Your task to perform on an android device: Play the last video I watched on Youtube Image 0: 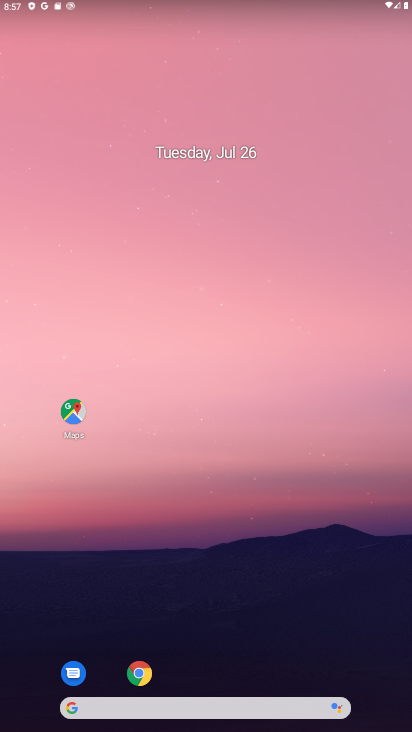
Step 0: drag from (240, 542) to (193, 127)
Your task to perform on an android device: Play the last video I watched on Youtube Image 1: 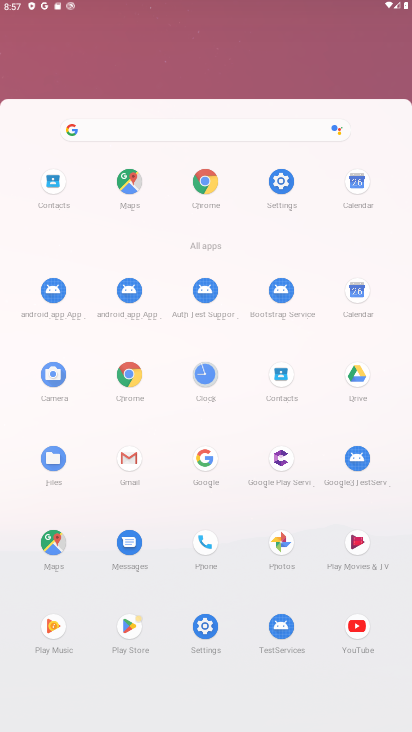
Step 1: drag from (220, 540) to (262, 82)
Your task to perform on an android device: Play the last video I watched on Youtube Image 2: 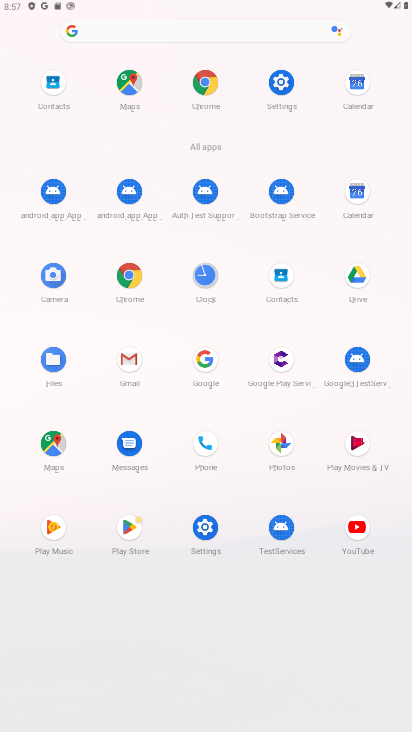
Step 2: drag from (330, 601) to (356, 113)
Your task to perform on an android device: Play the last video I watched on Youtube Image 3: 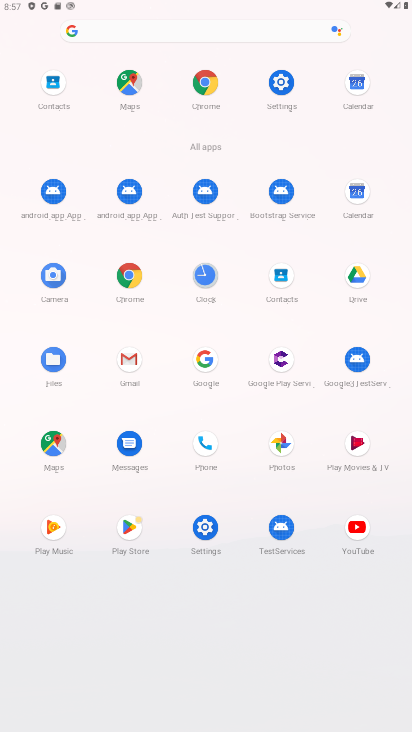
Step 3: click (364, 533)
Your task to perform on an android device: Play the last video I watched on Youtube Image 4: 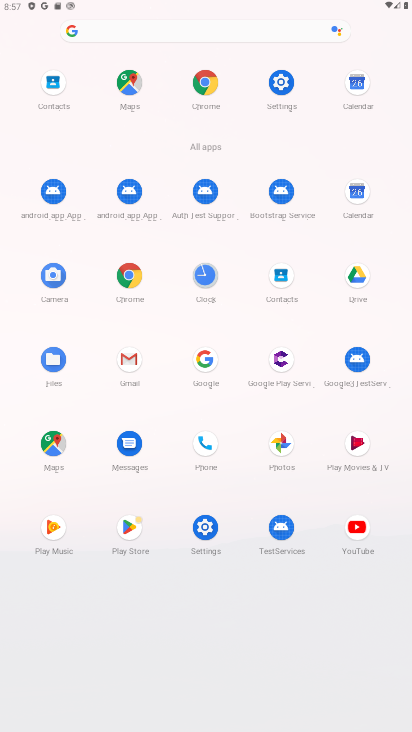
Step 4: click (364, 533)
Your task to perform on an android device: Play the last video I watched on Youtube Image 5: 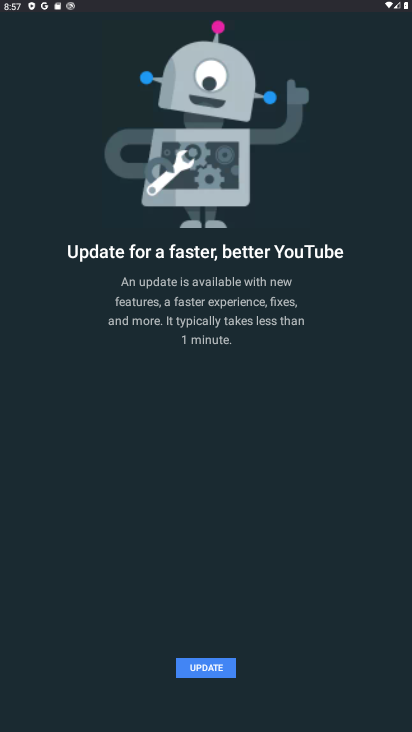
Step 5: click (363, 534)
Your task to perform on an android device: Play the last video I watched on Youtube Image 6: 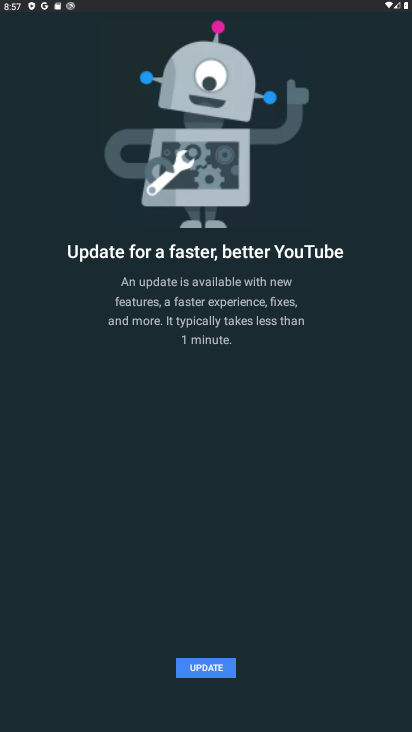
Step 6: click (198, 660)
Your task to perform on an android device: Play the last video I watched on Youtube Image 7: 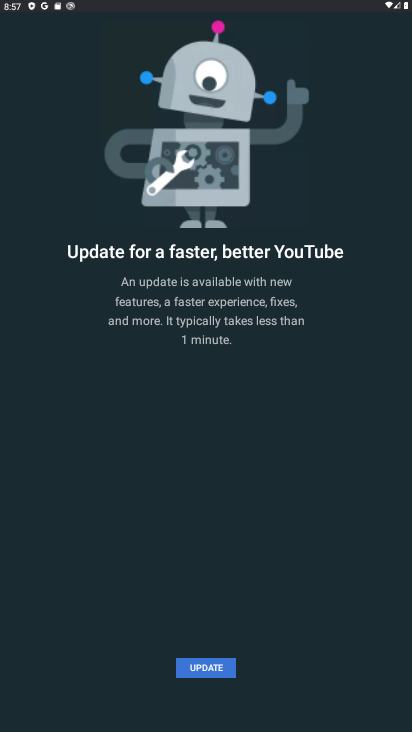
Step 7: click (199, 660)
Your task to perform on an android device: Play the last video I watched on Youtube Image 8: 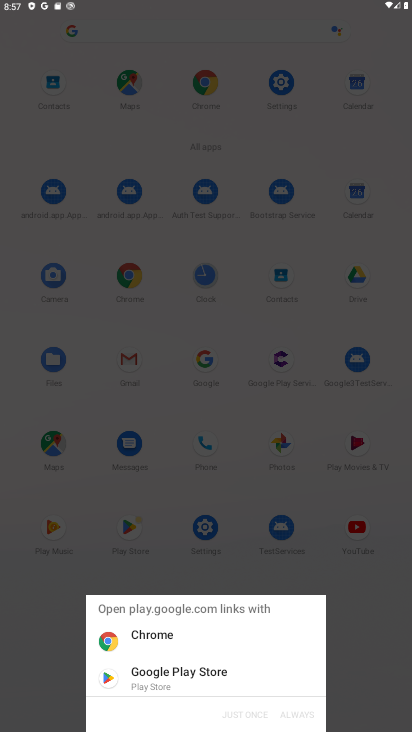
Step 8: click (160, 666)
Your task to perform on an android device: Play the last video I watched on Youtube Image 9: 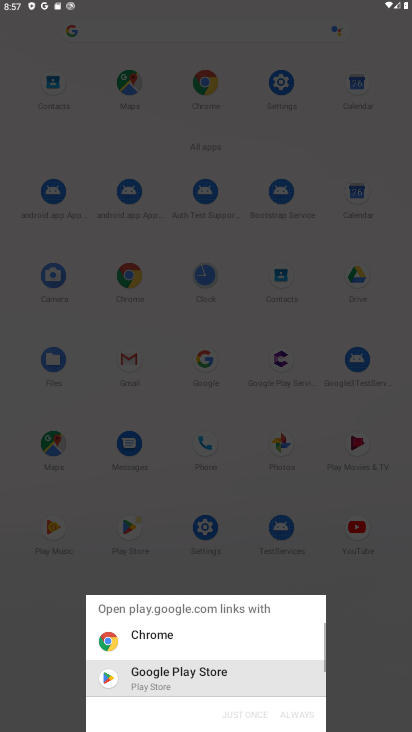
Step 9: click (161, 667)
Your task to perform on an android device: Play the last video I watched on Youtube Image 10: 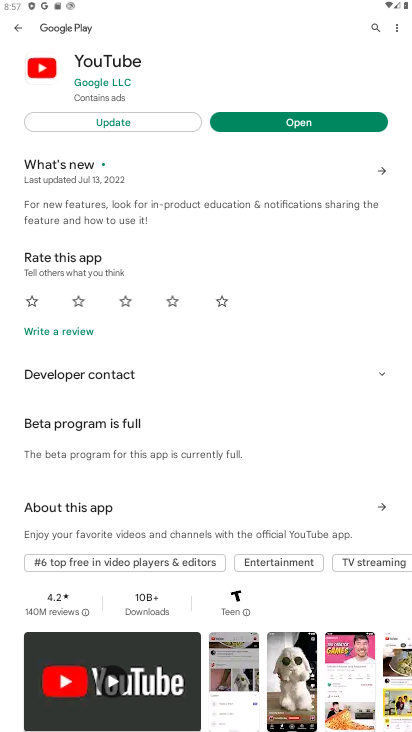
Step 10: click (124, 122)
Your task to perform on an android device: Play the last video I watched on Youtube Image 11: 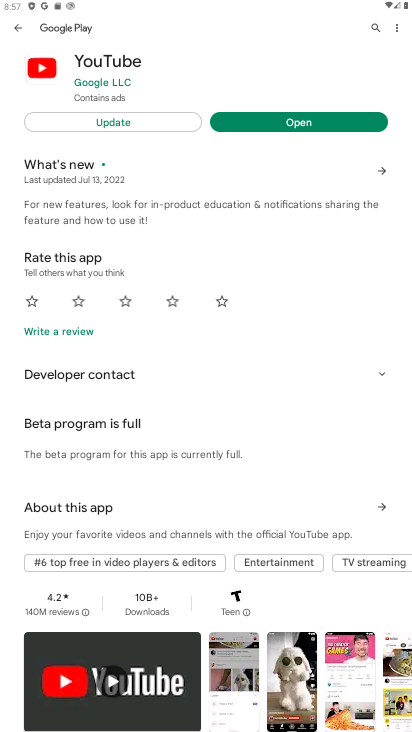
Step 11: click (124, 122)
Your task to perform on an android device: Play the last video I watched on Youtube Image 12: 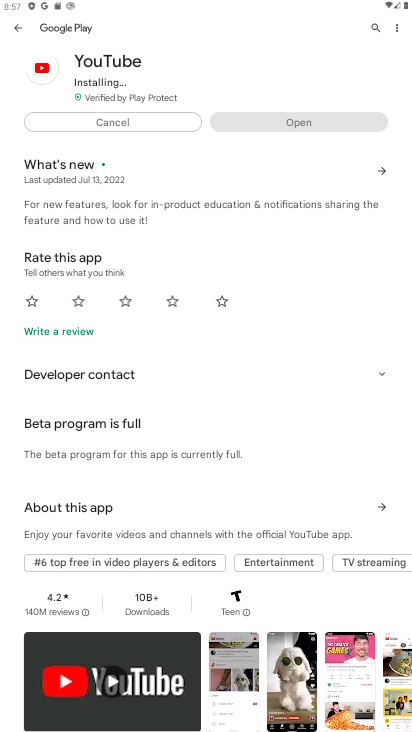
Step 12: click (320, 117)
Your task to perform on an android device: Play the last video I watched on Youtube Image 13: 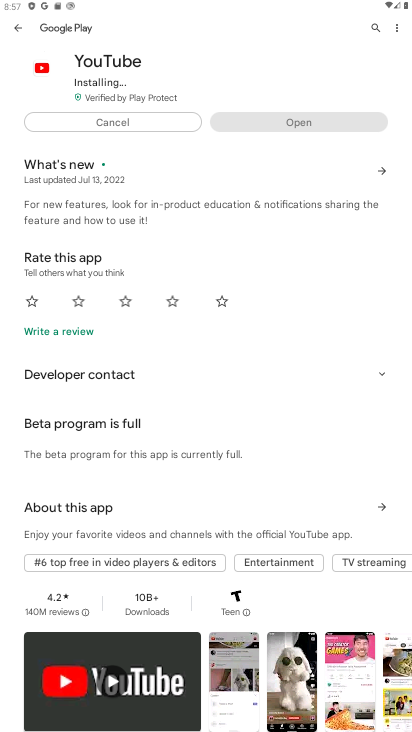
Step 13: click (320, 117)
Your task to perform on an android device: Play the last video I watched on Youtube Image 14: 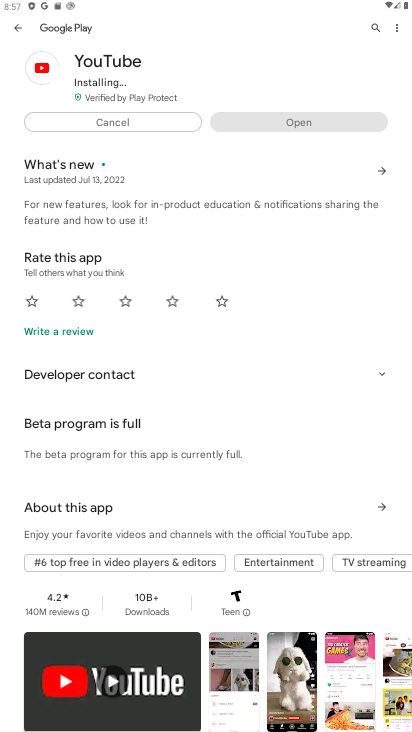
Step 14: click (319, 120)
Your task to perform on an android device: Play the last video I watched on Youtube Image 15: 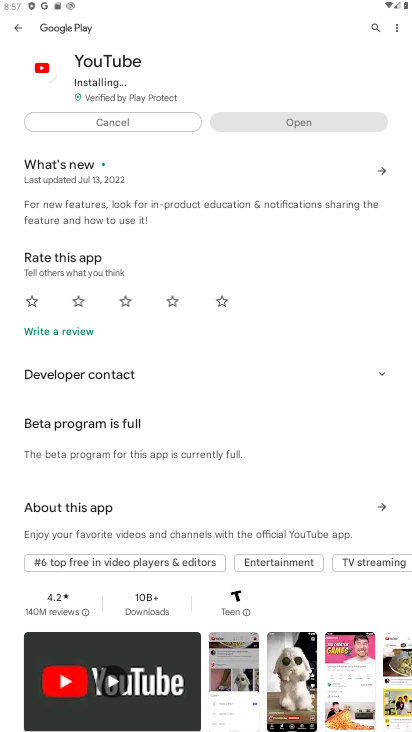
Step 15: click (319, 120)
Your task to perform on an android device: Play the last video I watched on Youtube Image 16: 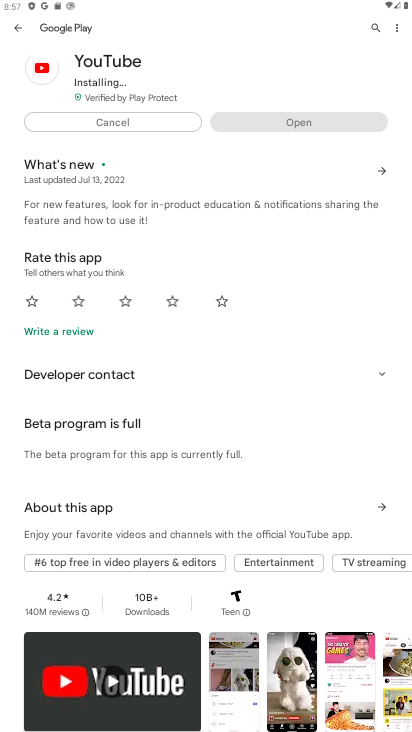
Step 16: click (319, 120)
Your task to perform on an android device: Play the last video I watched on Youtube Image 17: 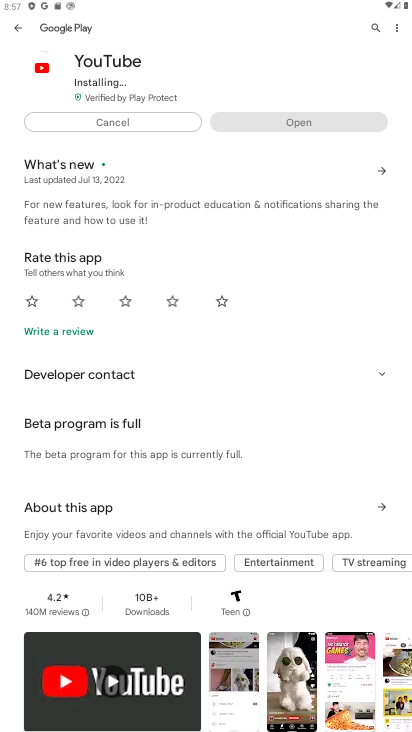
Step 17: click (319, 120)
Your task to perform on an android device: Play the last video I watched on Youtube Image 18: 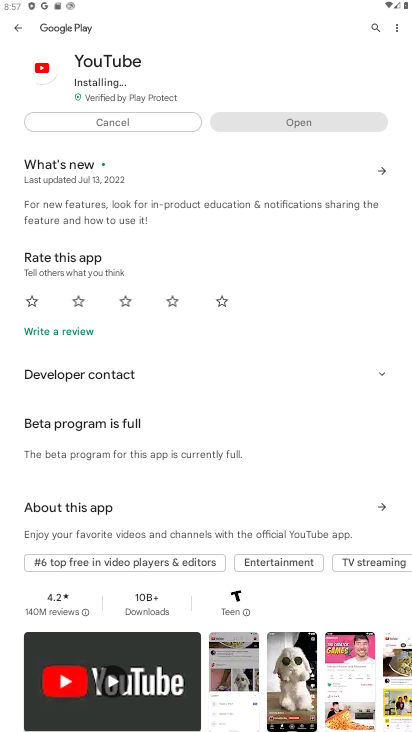
Step 18: click (319, 120)
Your task to perform on an android device: Play the last video I watched on Youtube Image 19: 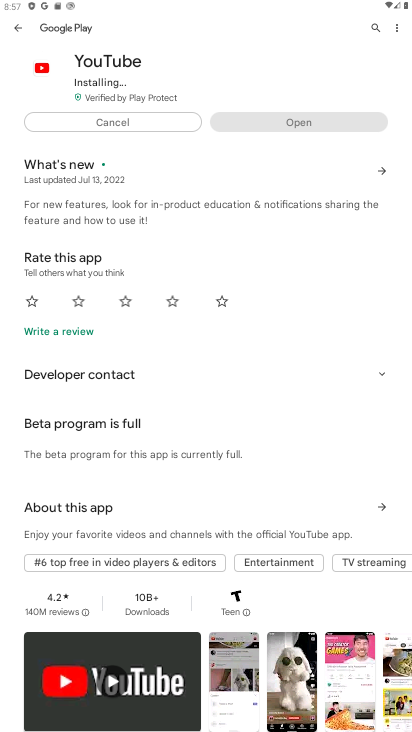
Step 19: click (310, 121)
Your task to perform on an android device: Play the last video I watched on Youtube Image 20: 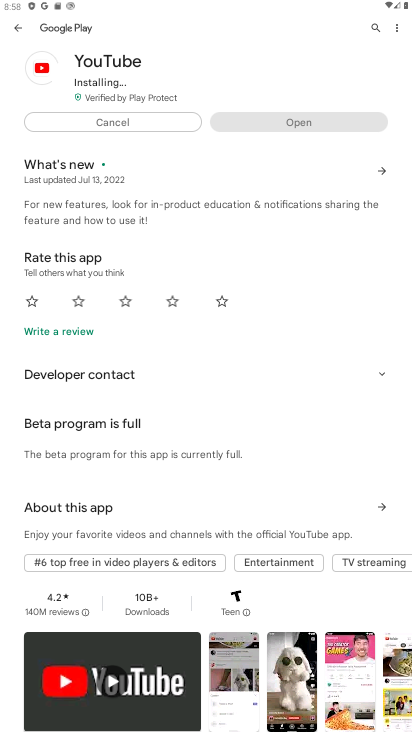
Step 20: click (310, 121)
Your task to perform on an android device: Play the last video I watched on Youtube Image 21: 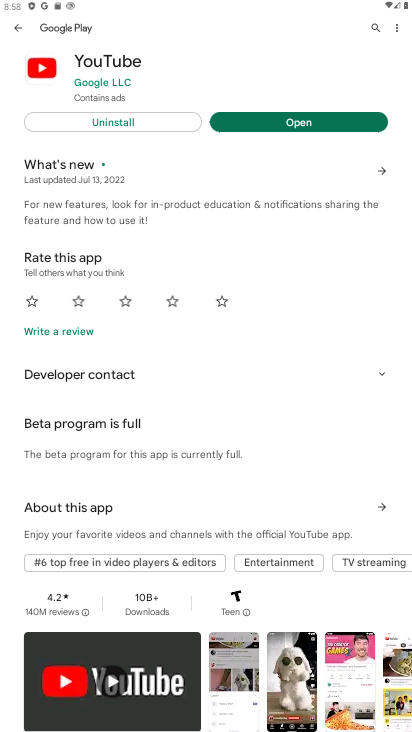
Step 21: click (312, 122)
Your task to perform on an android device: Play the last video I watched on Youtube Image 22: 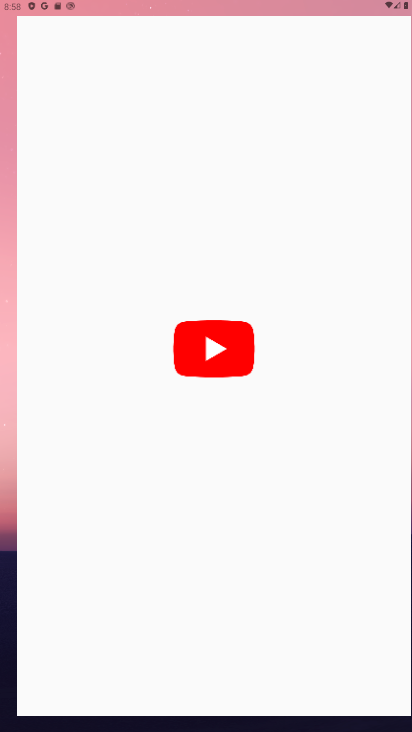
Step 22: click (313, 126)
Your task to perform on an android device: Play the last video I watched on Youtube Image 23: 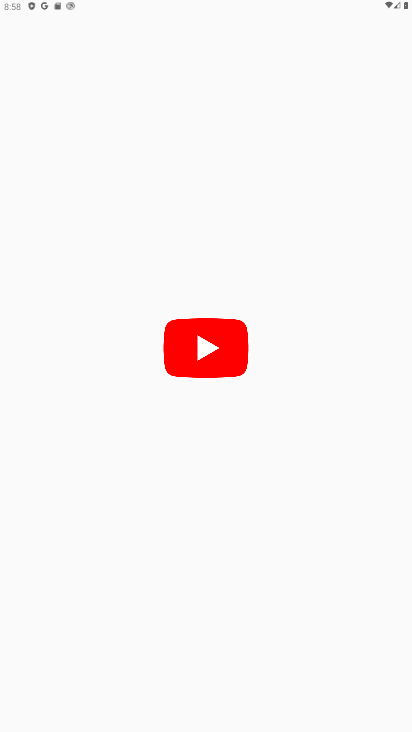
Step 23: click (314, 126)
Your task to perform on an android device: Play the last video I watched on Youtube Image 24: 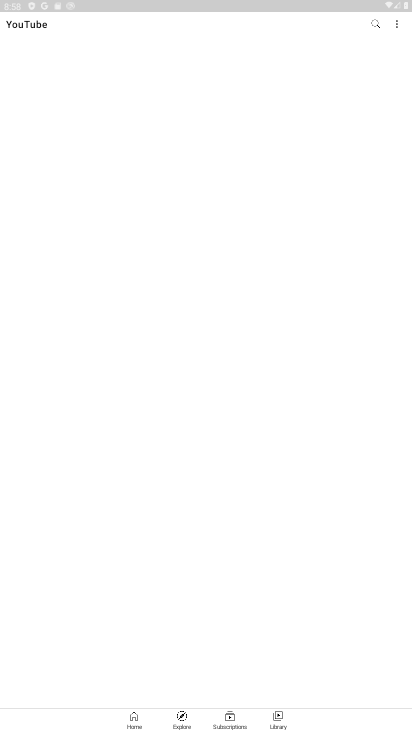
Step 24: click (187, 344)
Your task to perform on an android device: Play the last video I watched on Youtube Image 25: 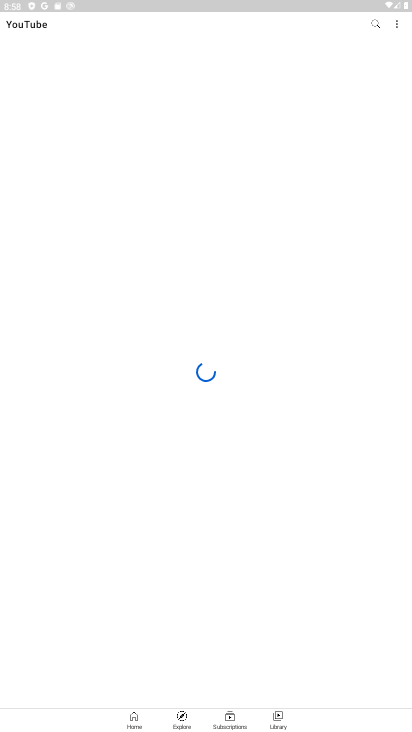
Step 25: click (193, 344)
Your task to perform on an android device: Play the last video I watched on Youtube Image 26: 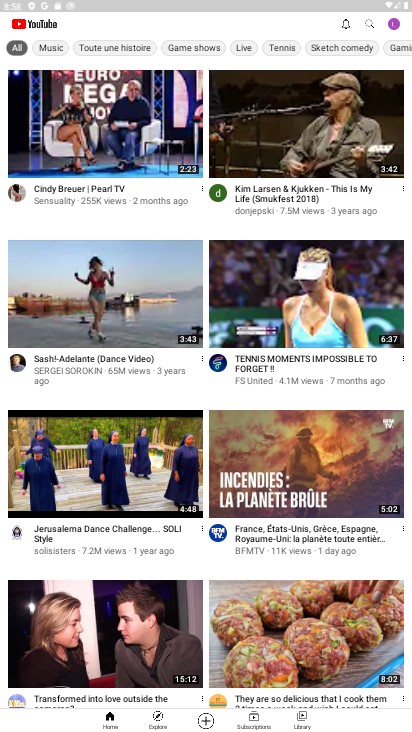
Step 26: click (296, 447)
Your task to perform on an android device: Play the last video I watched on Youtube Image 27: 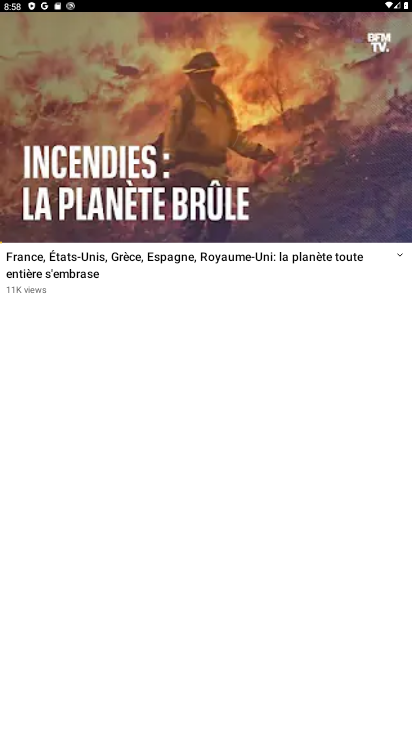
Step 27: click (188, 159)
Your task to perform on an android device: Play the last video I watched on Youtube Image 28: 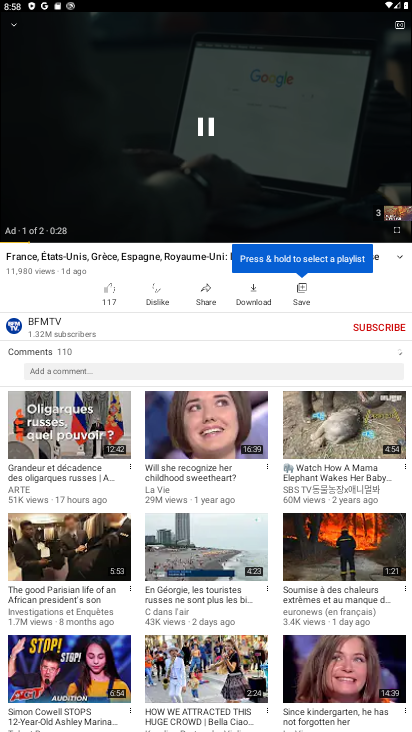
Step 28: click (189, 132)
Your task to perform on an android device: Play the last video I watched on Youtube Image 29: 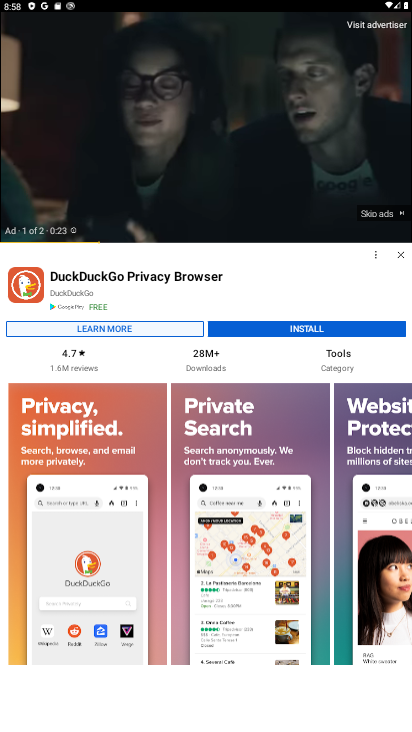
Step 29: click (388, 202)
Your task to perform on an android device: Play the last video I watched on Youtube Image 30: 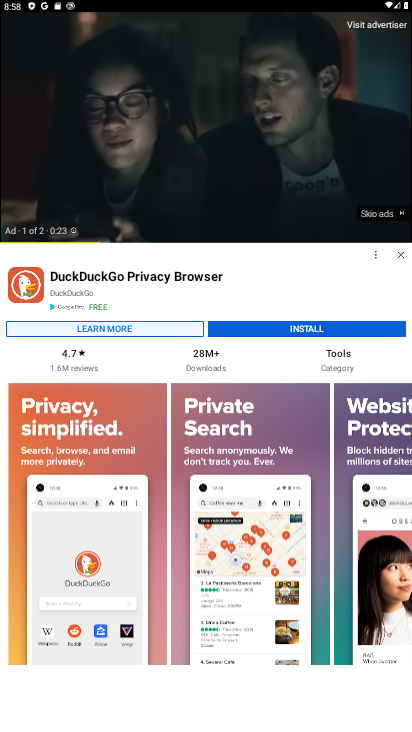
Step 30: click (387, 214)
Your task to perform on an android device: Play the last video I watched on Youtube Image 31: 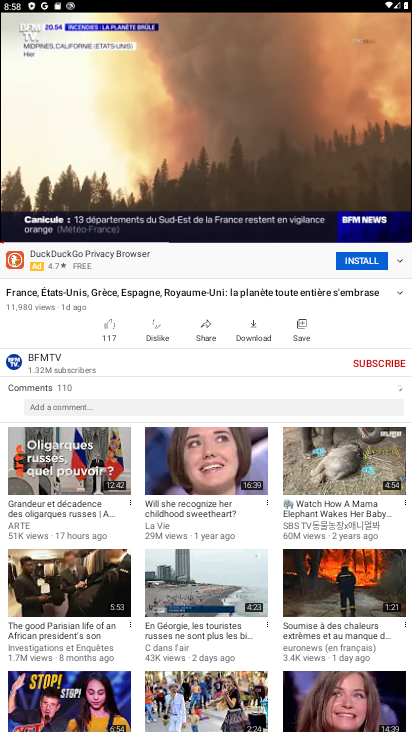
Step 31: task complete